Your task to perform on an android device: remove spam from my inbox in the gmail app Image 0: 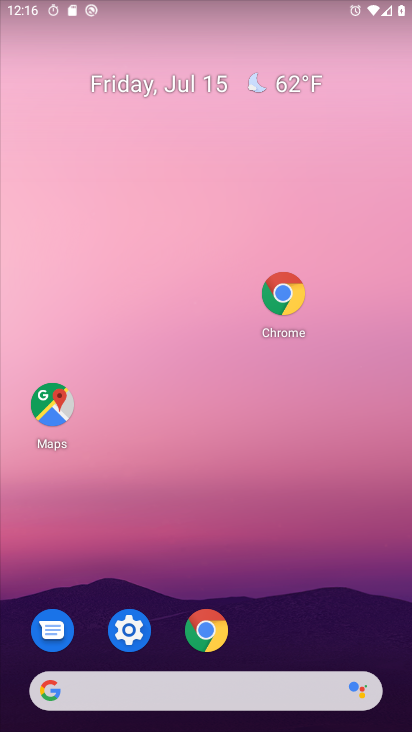
Step 0: drag from (223, 601) to (152, 113)
Your task to perform on an android device: remove spam from my inbox in the gmail app Image 1: 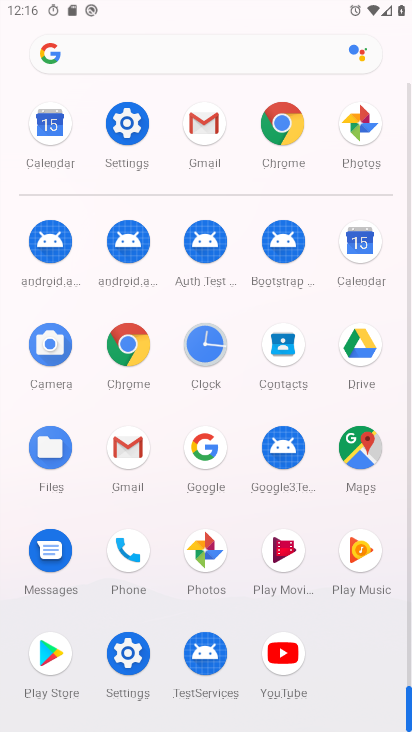
Step 1: click (115, 447)
Your task to perform on an android device: remove spam from my inbox in the gmail app Image 2: 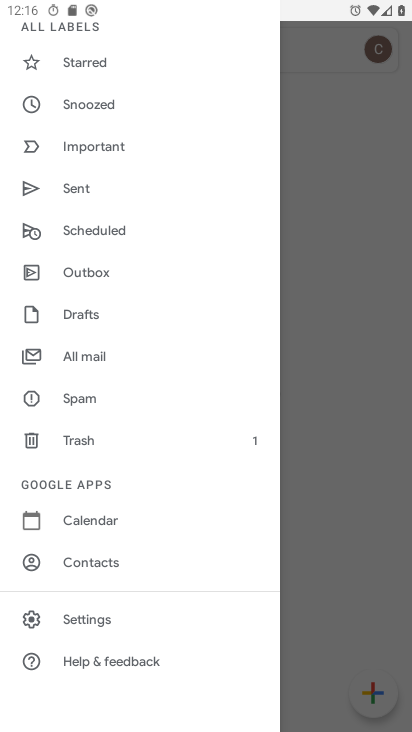
Step 2: click (127, 452)
Your task to perform on an android device: remove spam from my inbox in the gmail app Image 3: 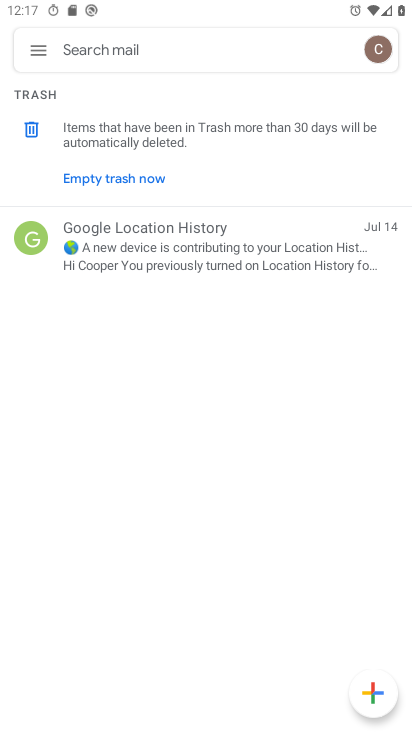
Step 3: click (42, 41)
Your task to perform on an android device: remove spam from my inbox in the gmail app Image 4: 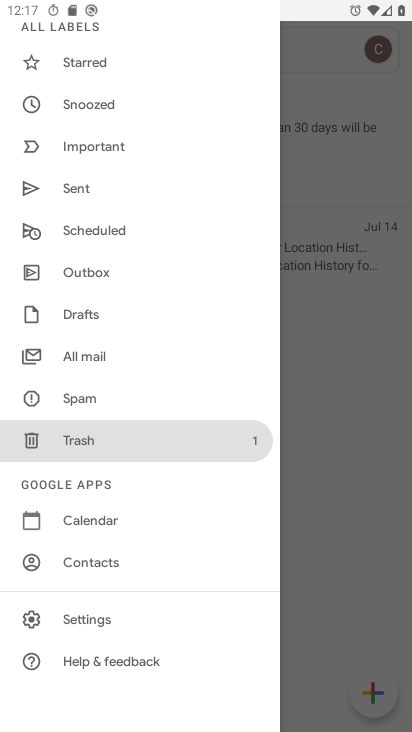
Step 4: click (78, 403)
Your task to perform on an android device: remove spam from my inbox in the gmail app Image 5: 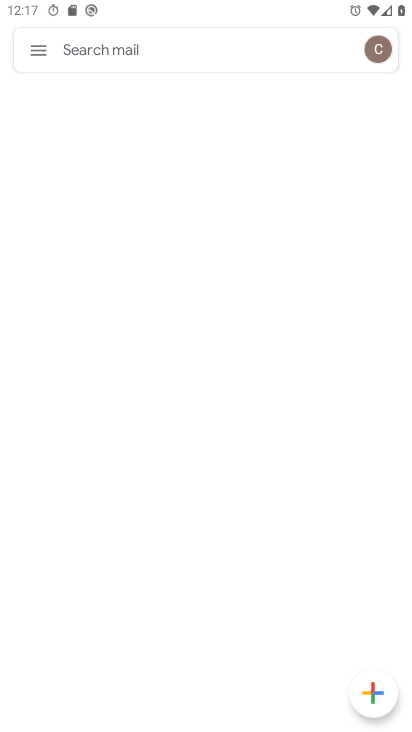
Step 5: click (77, 401)
Your task to perform on an android device: remove spam from my inbox in the gmail app Image 6: 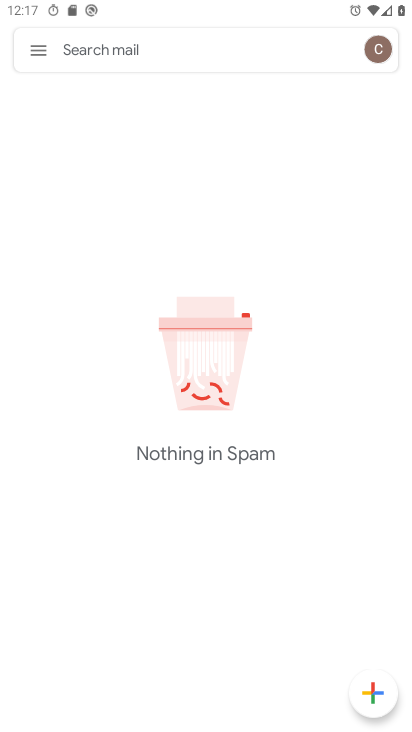
Step 6: task complete